Your task to perform on an android device: Turn on the flashlight Image 0: 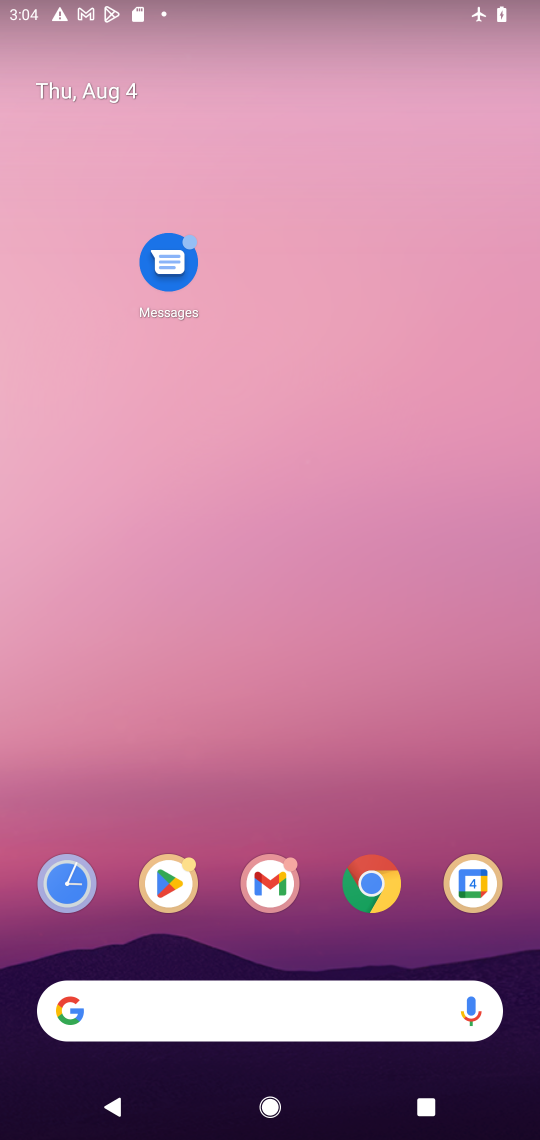
Step 0: drag from (310, 943) to (316, 107)
Your task to perform on an android device: Turn on the flashlight Image 1: 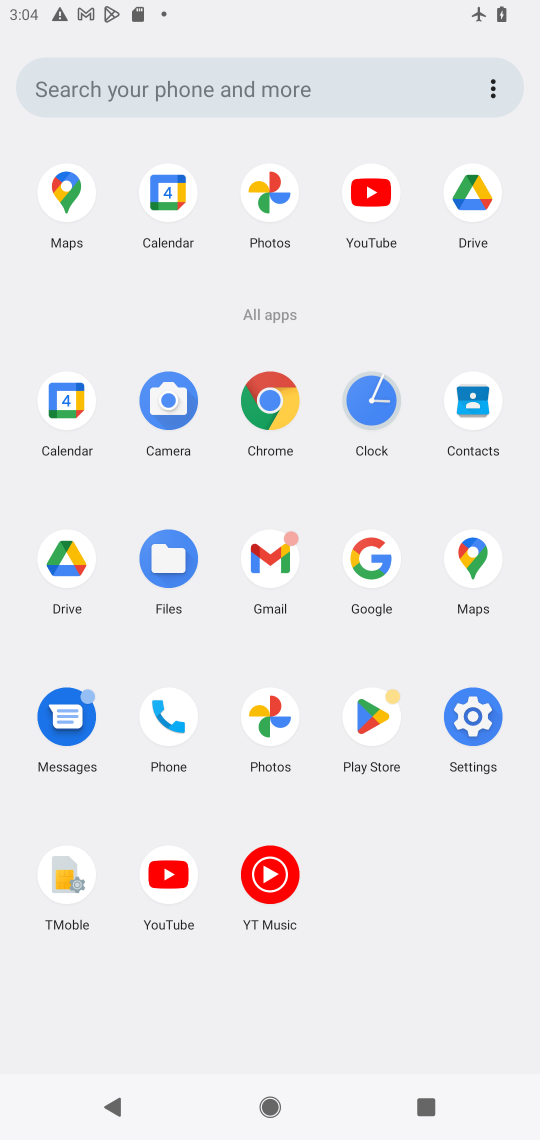
Step 1: click (472, 727)
Your task to perform on an android device: Turn on the flashlight Image 2: 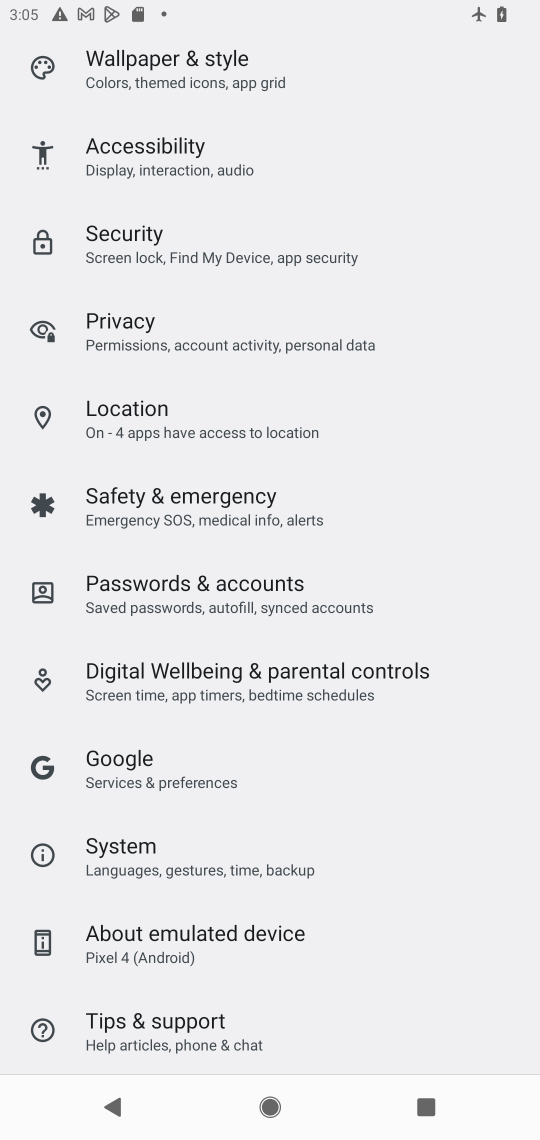
Step 2: task complete